Your task to perform on an android device: Go to sound settings Image 0: 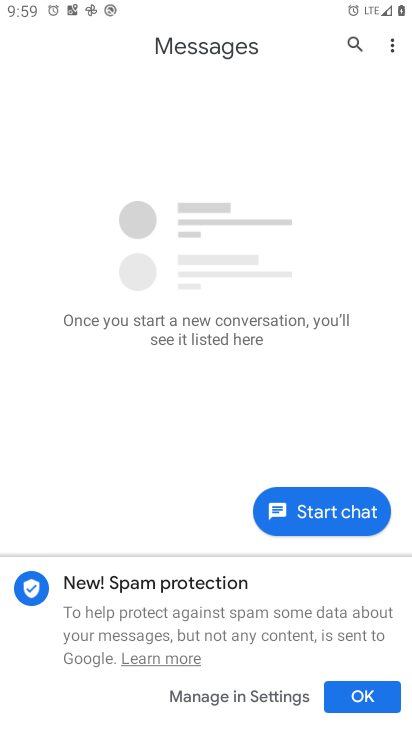
Step 0: press home button
Your task to perform on an android device: Go to sound settings Image 1: 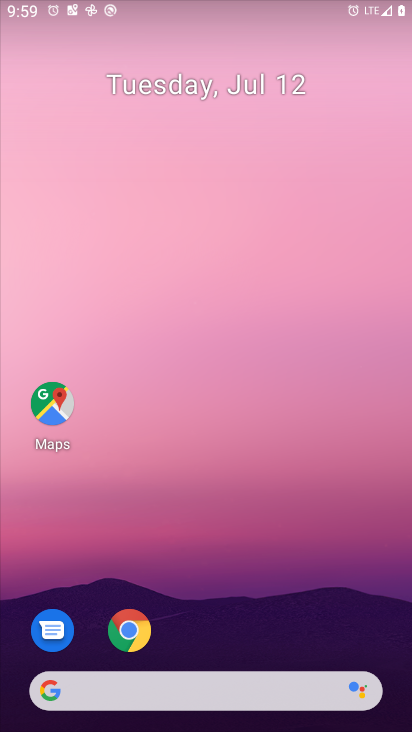
Step 1: drag from (251, 393) to (251, 20)
Your task to perform on an android device: Go to sound settings Image 2: 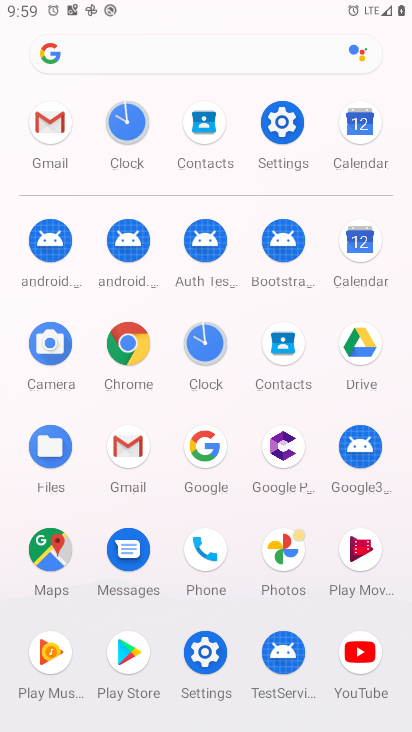
Step 2: click (281, 129)
Your task to perform on an android device: Go to sound settings Image 3: 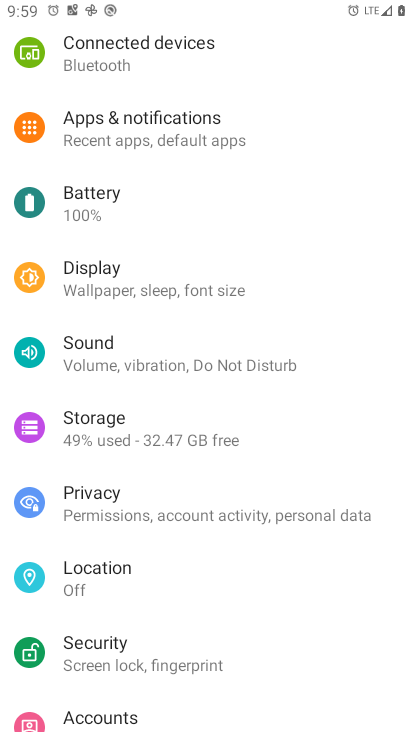
Step 3: click (108, 350)
Your task to perform on an android device: Go to sound settings Image 4: 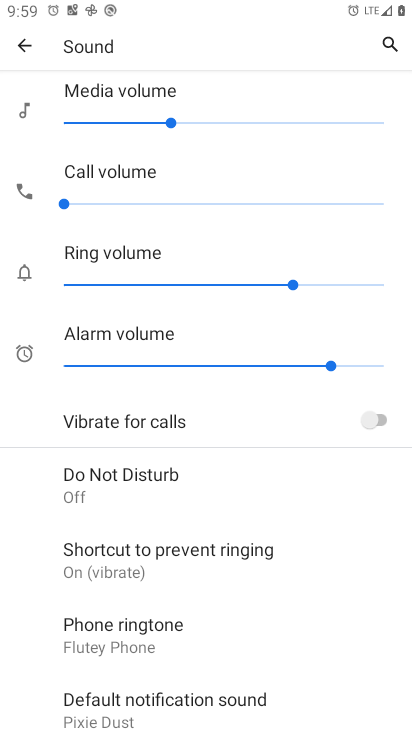
Step 4: task complete